Your task to perform on an android device: Open ESPN.com Image 0: 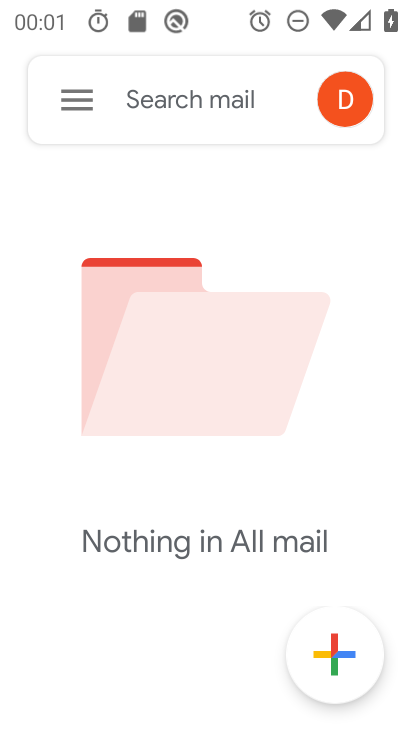
Step 0: press home button
Your task to perform on an android device: Open ESPN.com Image 1: 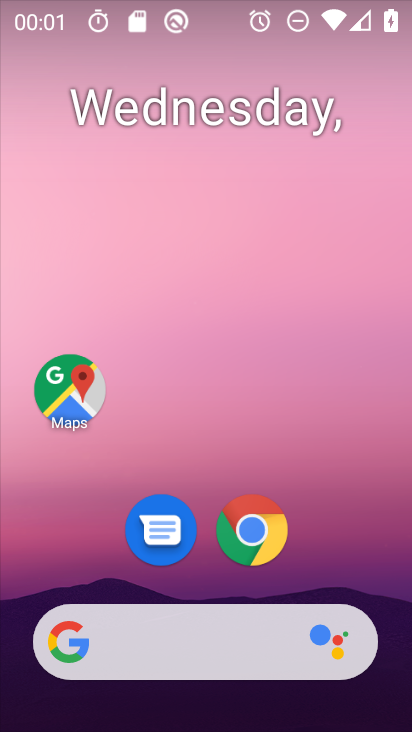
Step 1: click (247, 533)
Your task to perform on an android device: Open ESPN.com Image 2: 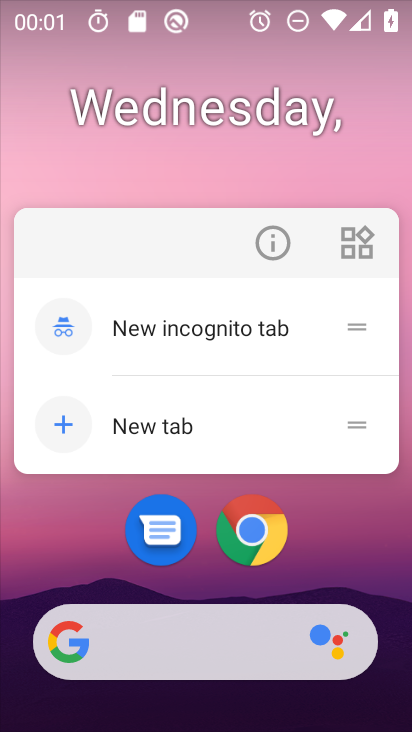
Step 2: click (265, 531)
Your task to perform on an android device: Open ESPN.com Image 3: 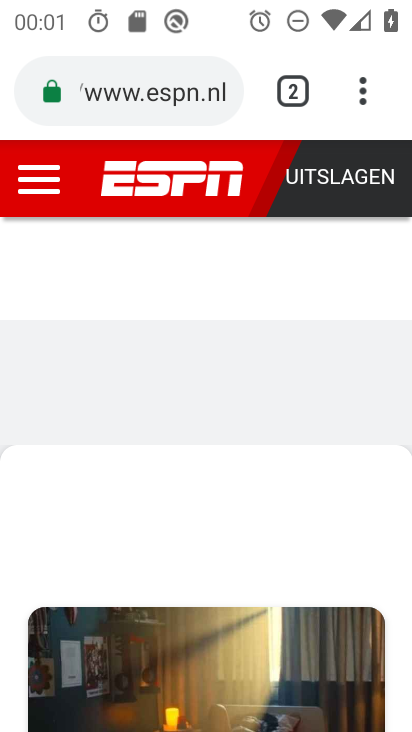
Step 3: task complete